Your task to perform on an android device: uninstall "PUBG MOBILE" Image 0: 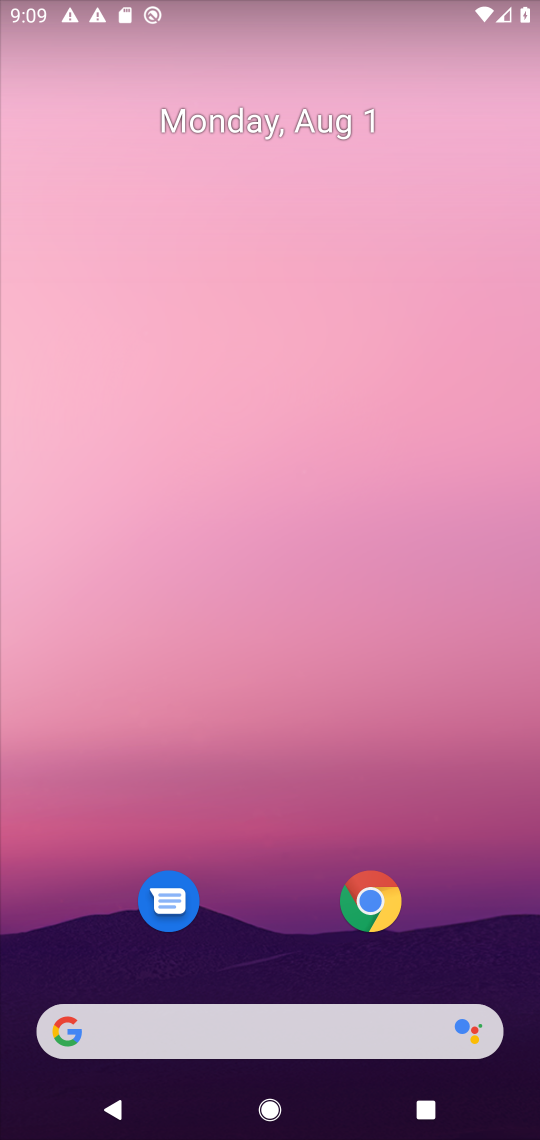
Step 0: drag from (259, 943) to (260, 0)
Your task to perform on an android device: uninstall "PUBG MOBILE" Image 1: 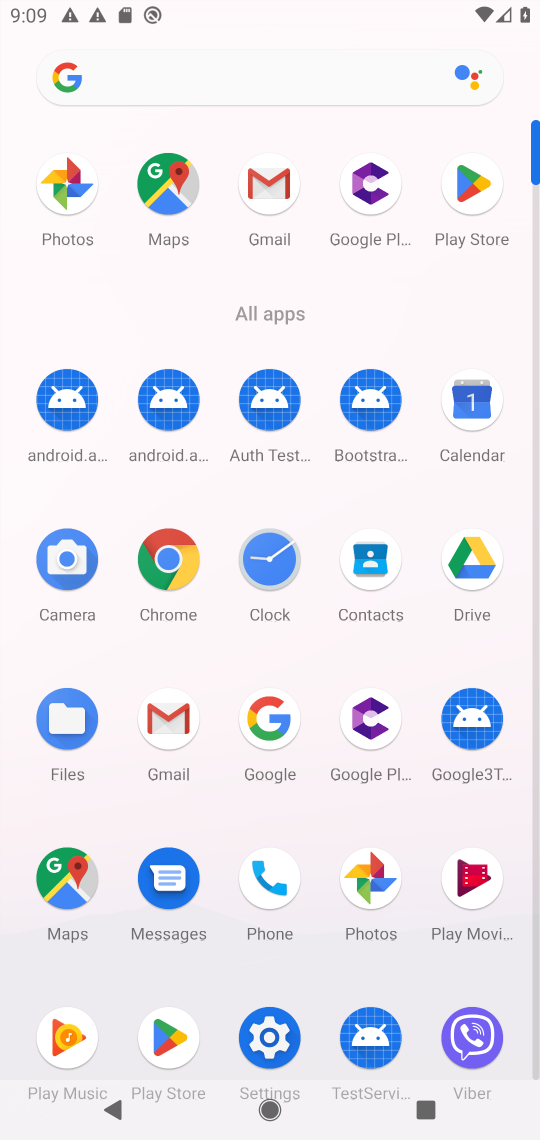
Step 1: click (487, 174)
Your task to perform on an android device: uninstall "PUBG MOBILE" Image 2: 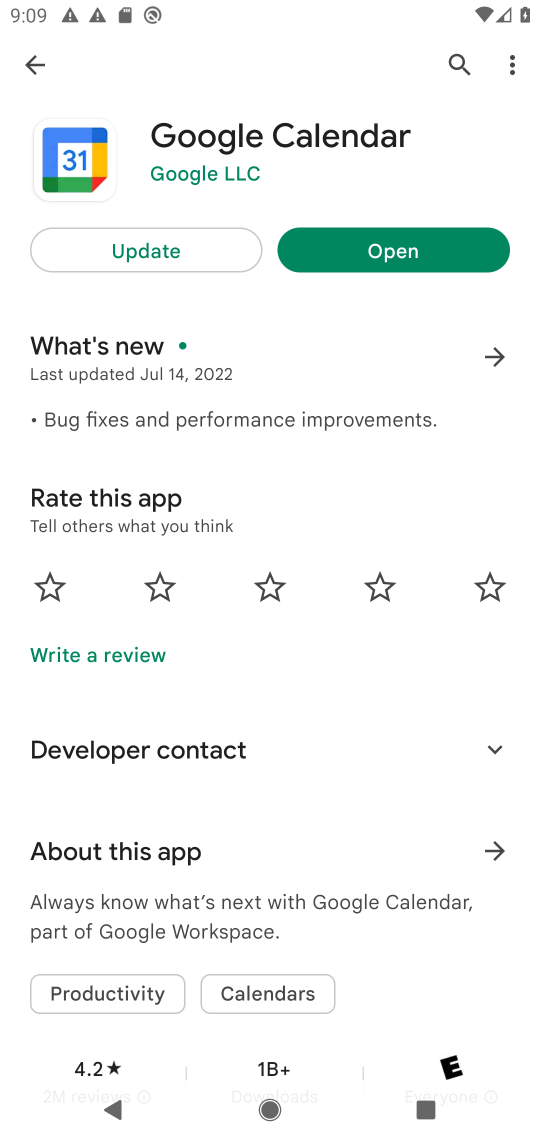
Step 2: click (466, 63)
Your task to perform on an android device: uninstall "PUBG MOBILE" Image 3: 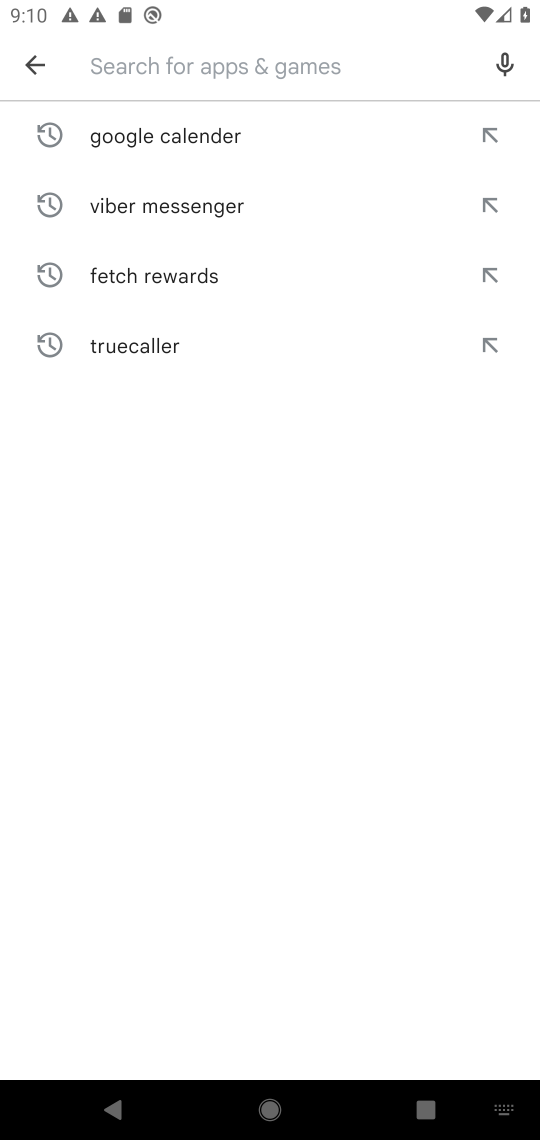
Step 3: type "pubg mobile"
Your task to perform on an android device: uninstall "PUBG MOBILE" Image 4: 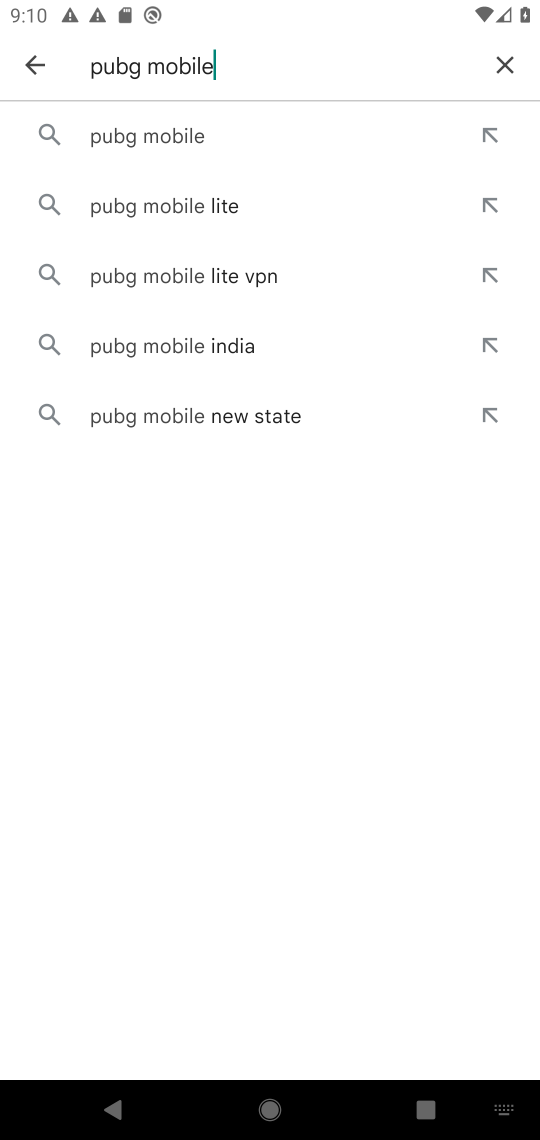
Step 4: click (332, 128)
Your task to perform on an android device: uninstall "PUBG MOBILE" Image 5: 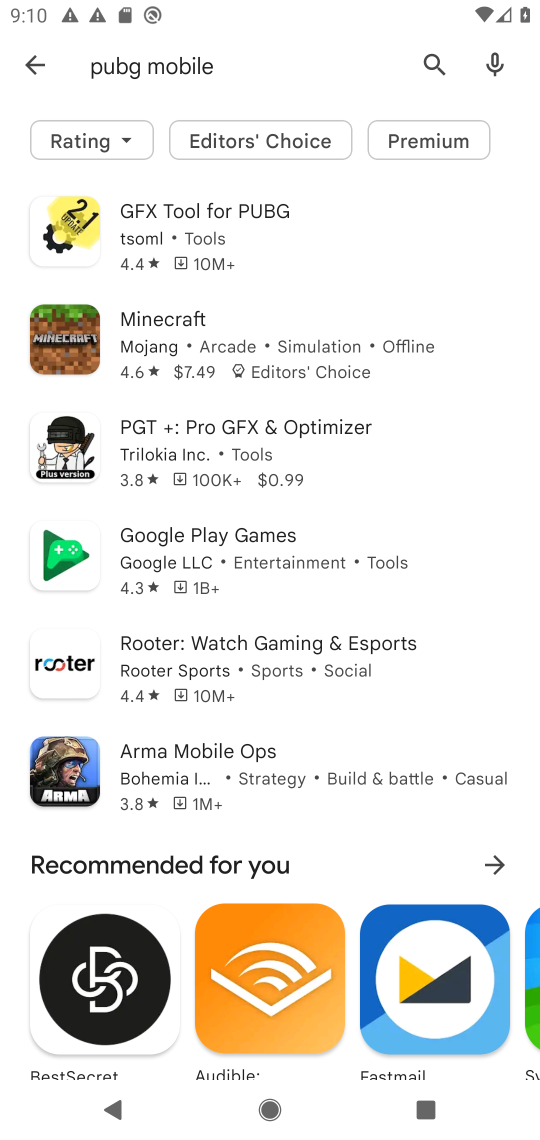
Step 5: task complete